Your task to perform on an android device: Open network settings Image 0: 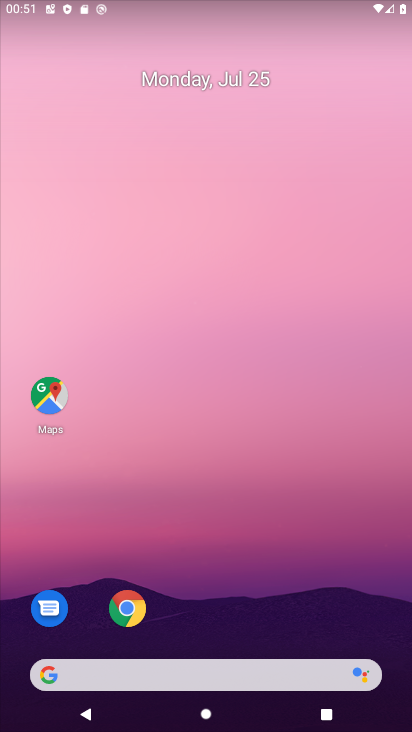
Step 0: drag from (217, 644) to (169, 45)
Your task to perform on an android device: Open network settings Image 1: 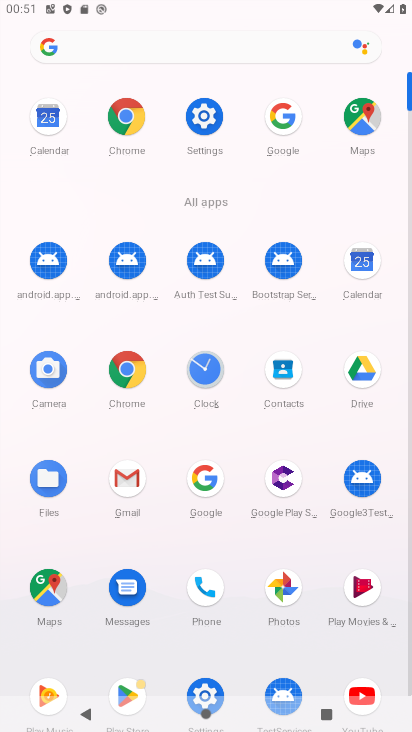
Step 1: click (210, 693)
Your task to perform on an android device: Open network settings Image 2: 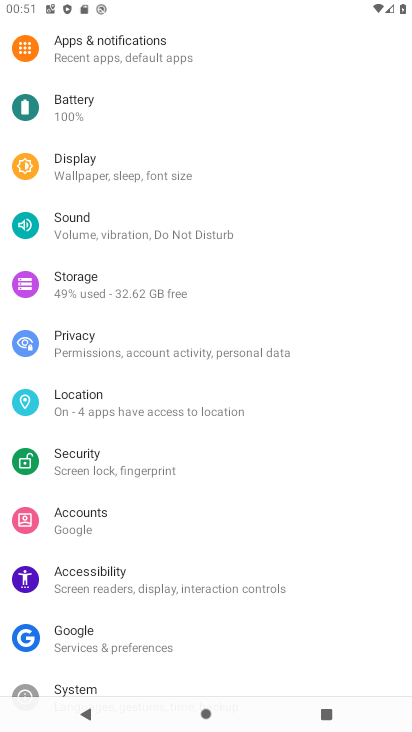
Step 2: drag from (167, 163) to (171, 562)
Your task to perform on an android device: Open network settings Image 3: 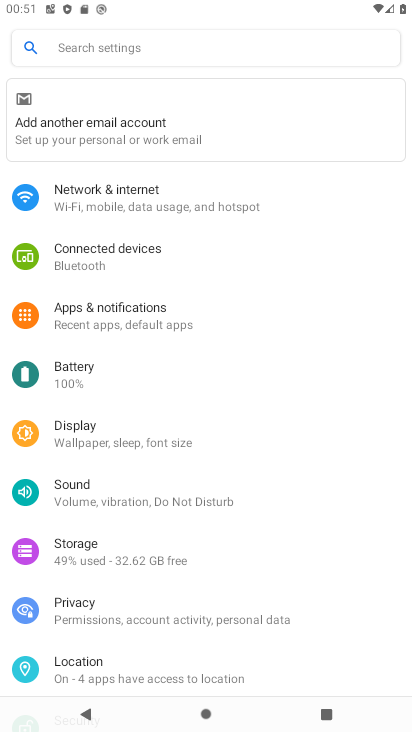
Step 3: click (119, 194)
Your task to perform on an android device: Open network settings Image 4: 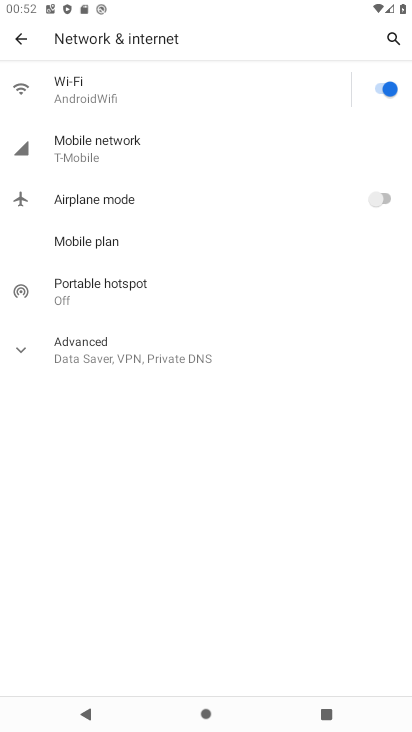
Step 4: click (130, 362)
Your task to perform on an android device: Open network settings Image 5: 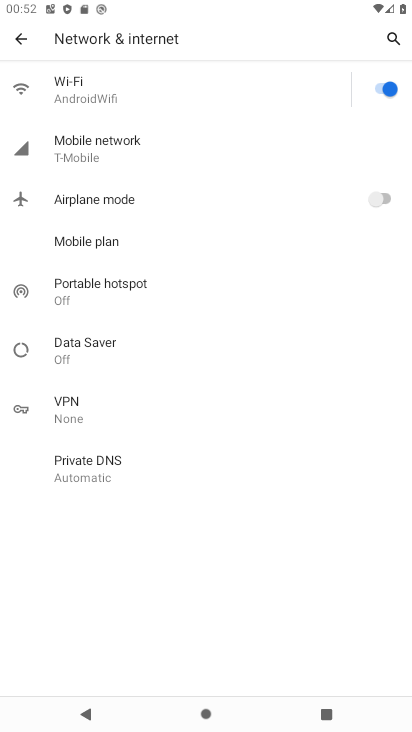
Step 5: task complete